Your task to perform on an android device: open device folders in google photos Image 0: 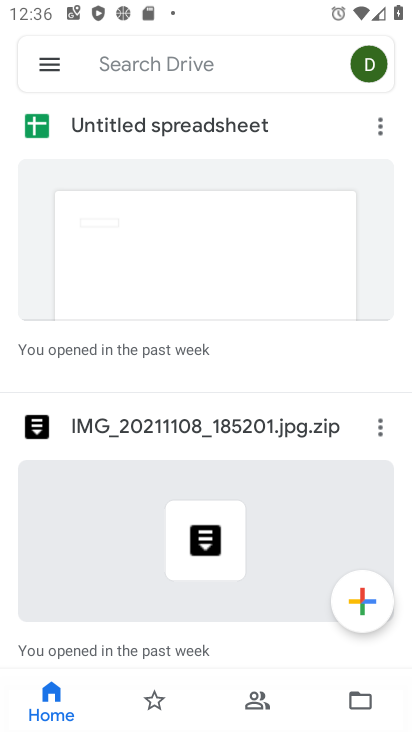
Step 0: press home button
Your task to perform on an android device: open device folders in google photos Image 1: 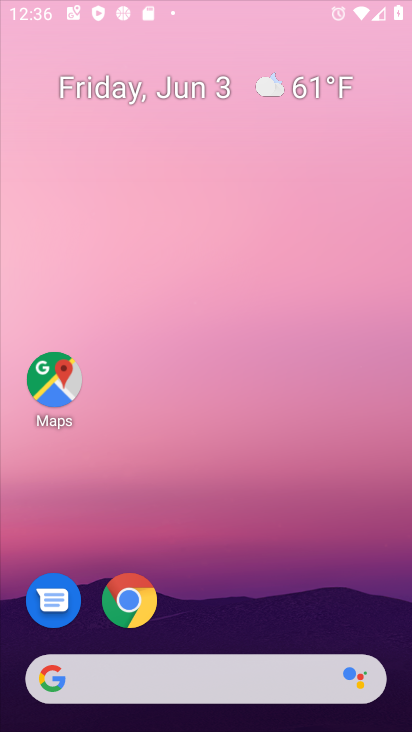
Step 1: drag from (248, 558) to (231, 213)
Your task to perform on an android device: open device folders in google photos Image 2: 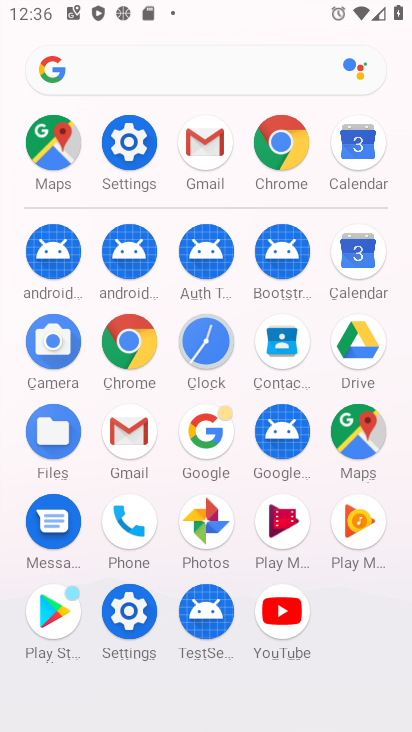
Step 2: click (223, 524)
Your task to perform on an android device: open device folders in google photos Image 3: 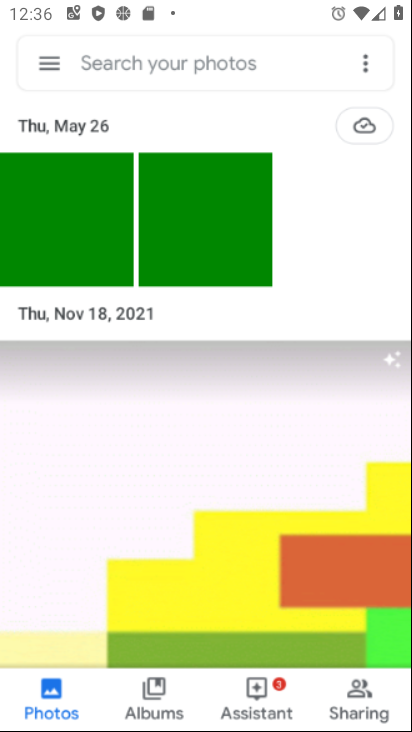
Step 3: click (48, 72)
Your task to perform on an android device: open device folders in google photos Image 4: 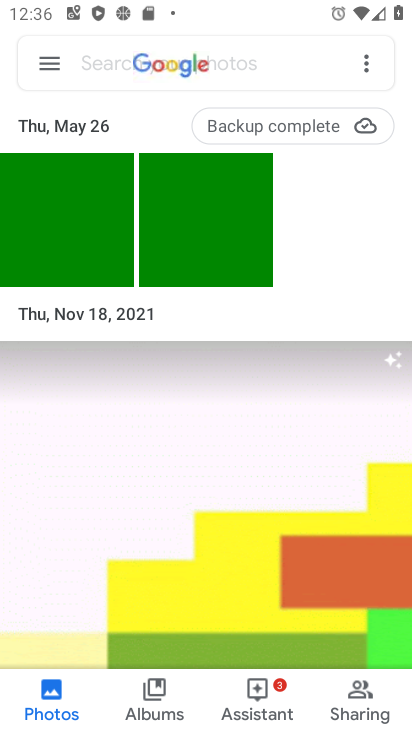
Step 4: click (53, 58)
Your task to perform on an android device: open device folders in google photos Image 5: 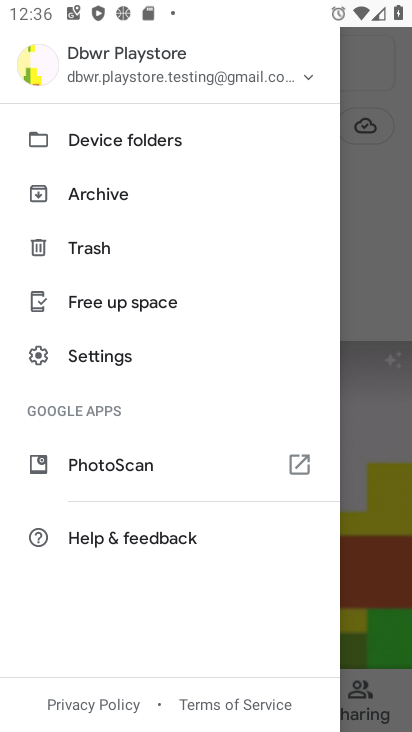
Step 5: click (129, 151)
Your task to perform on an android device: open device folders in google photos Image 6: 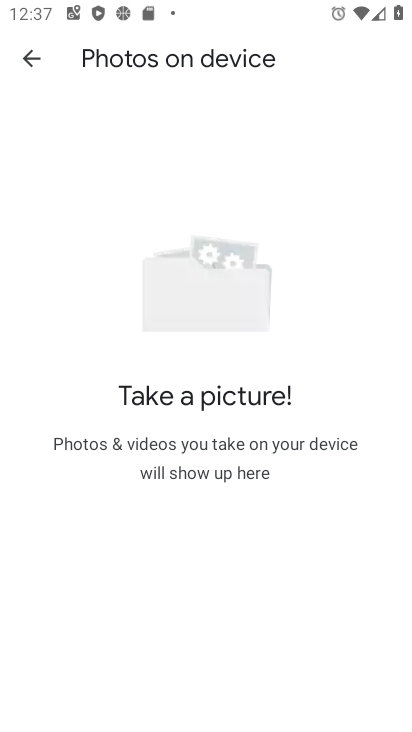
Step 6: task complete